Your task to perform on an android device: open app "Facebook" Image 0: 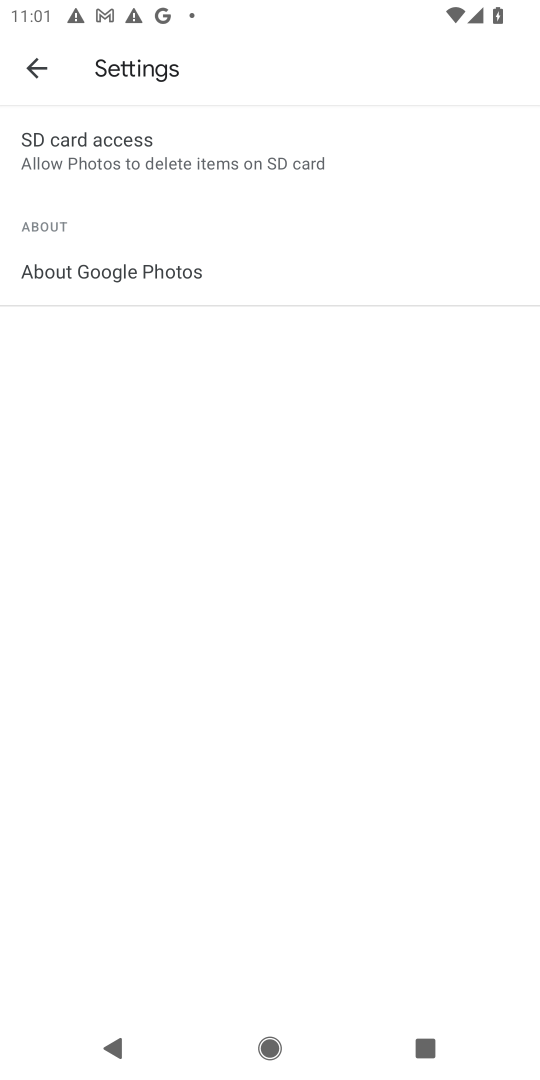
Step 0: press home button
Your task to perform on an android device: open app "Facebook" Image 1: 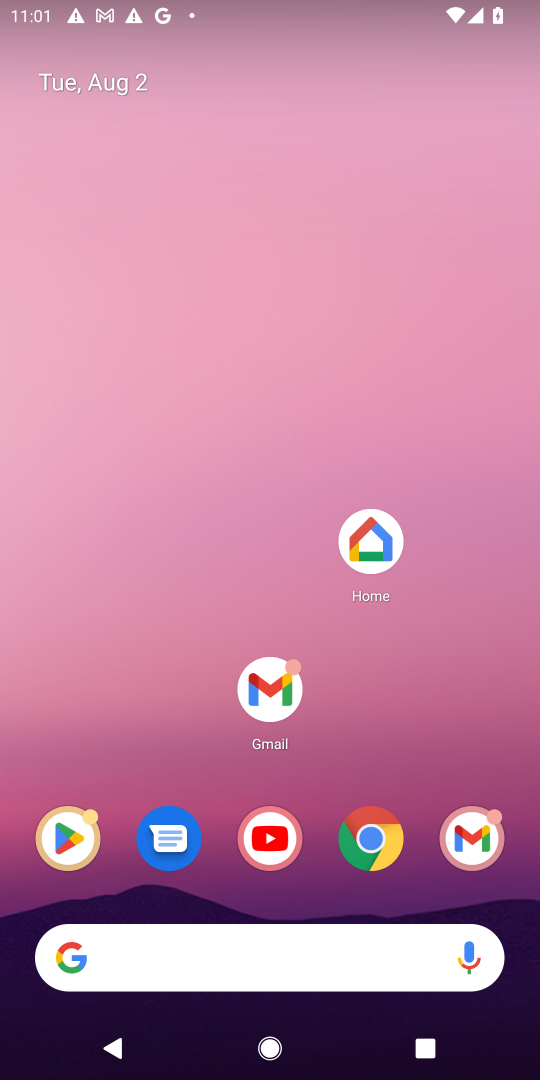
Step 1: drag from (417, 698) to (470, 109)
Your task to perform on an android device: open app "Facebook" Image 2: 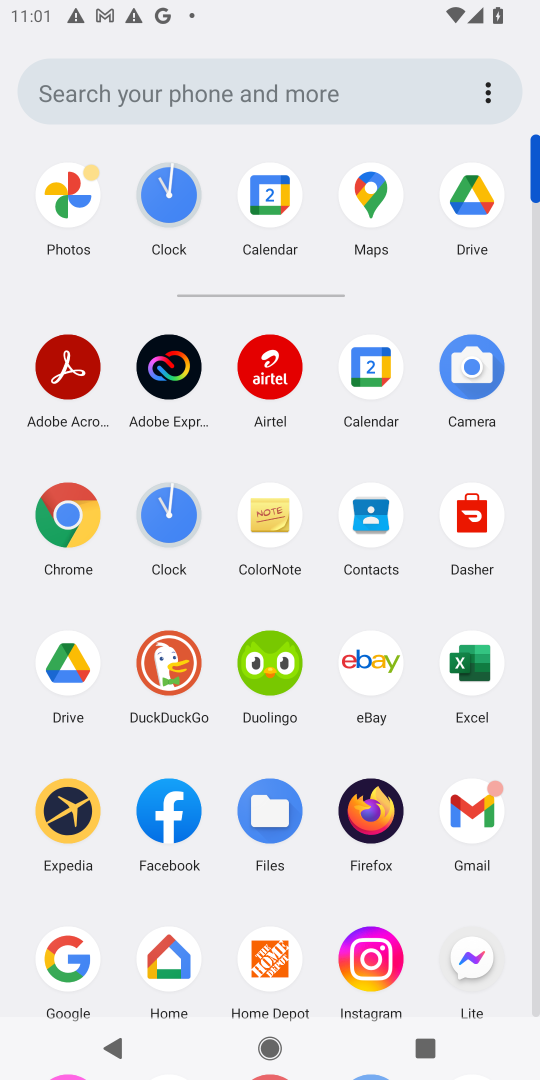
Step 2: drag from (413, 884) to (406, 534)
Your task to perform on an android device: open app "Facebook" Image 3: 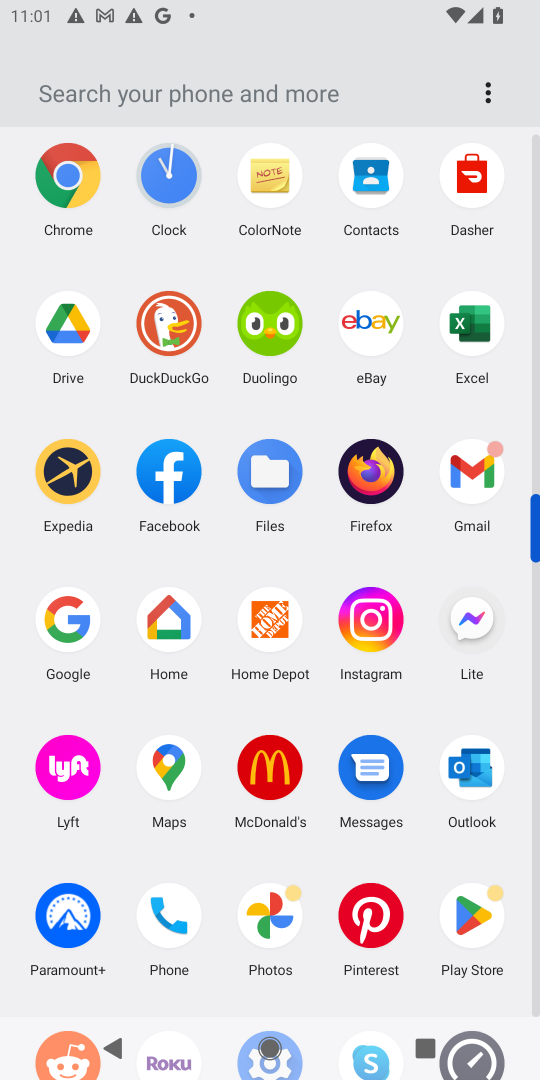
Step 3: click (485, 933)
Your task to perform on an android device: open app "Facebook" Image 4: 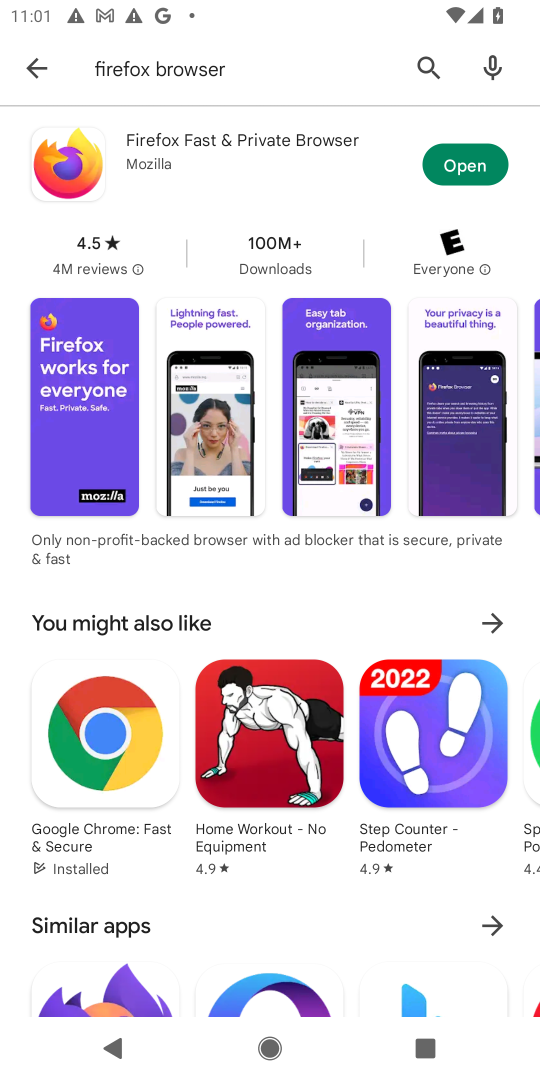
Step 4: click (422, 52)
Your task to perform on an android device: open app "Facebook" Image 5: 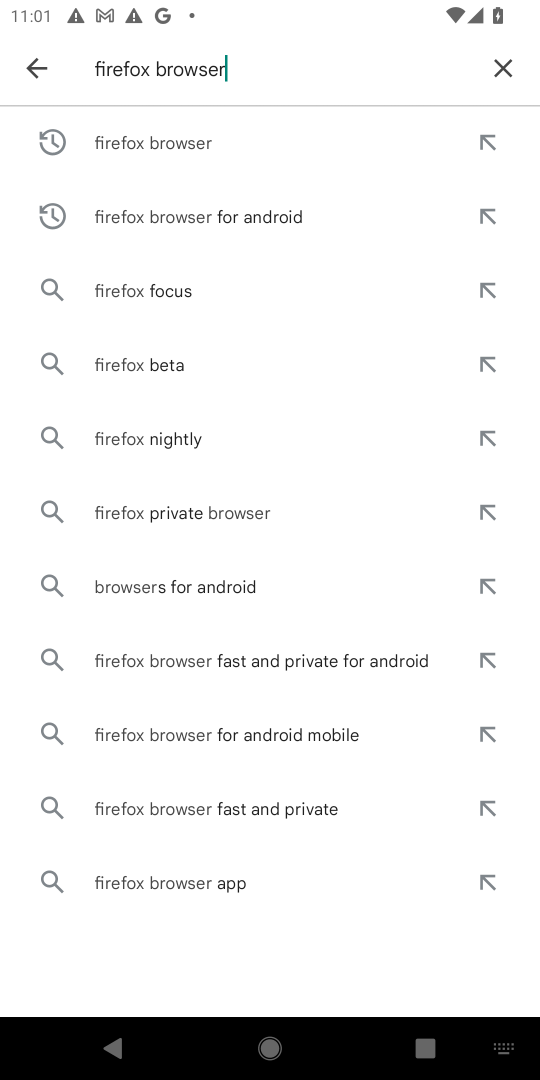
Step 5: click (508, 69)
Your task to perform on an android device: open app "Facebook" Image 6: 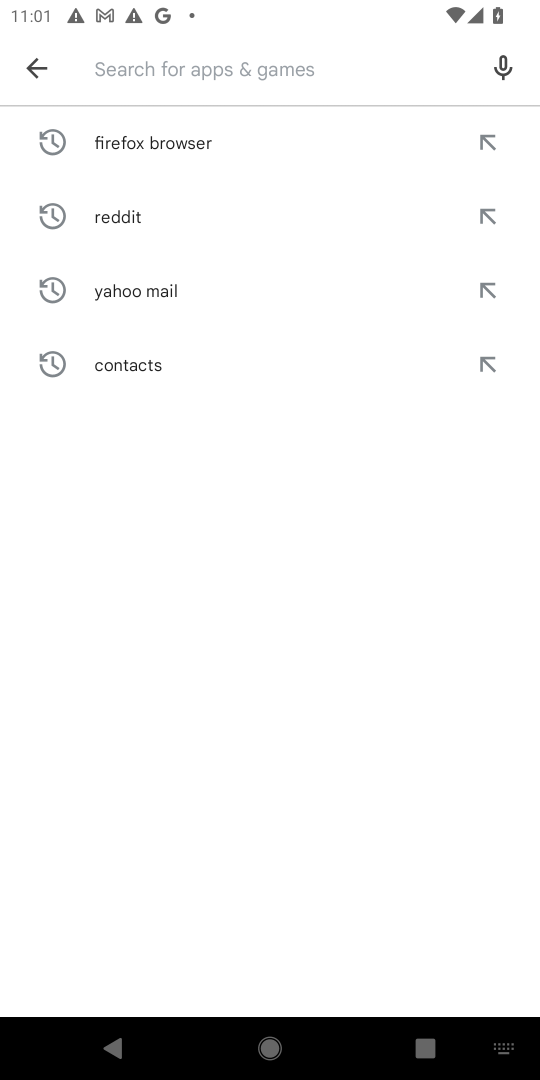
Step 6: click (363, 79)
Your task to perform on an android device: open app "Facebook" Image 7: 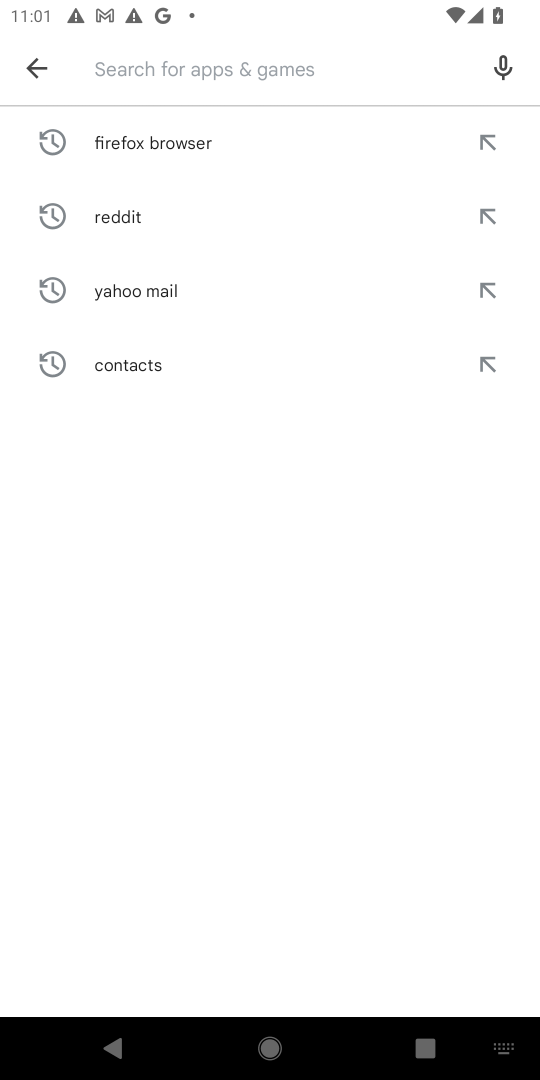
Step 7: type "facebook"
Your task to perform on an android device: open app "Facebook" Image 8: 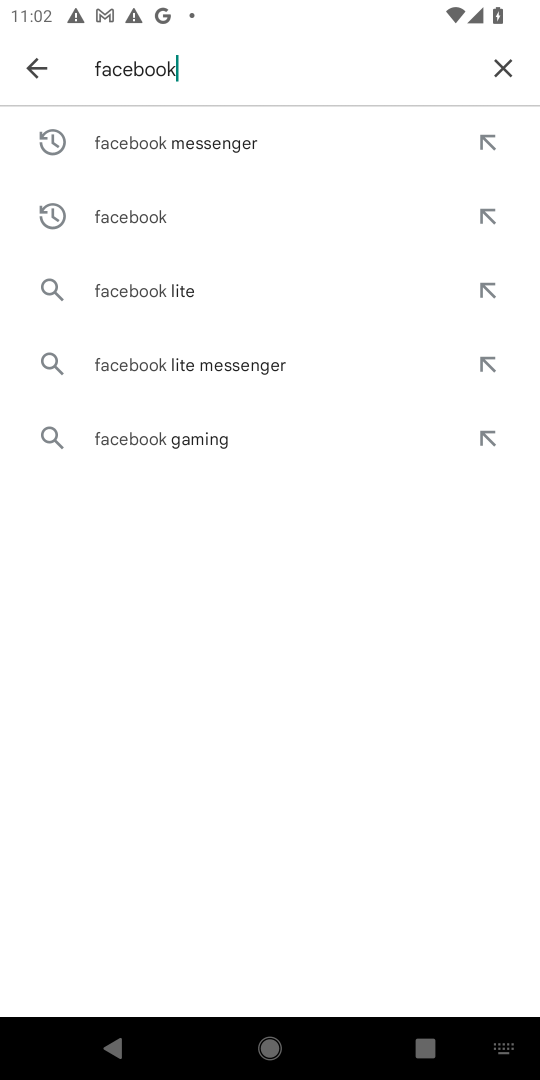
Step 8: click (208, 220)
Your task to perform on an android device: open app "Facebook" Image 9: 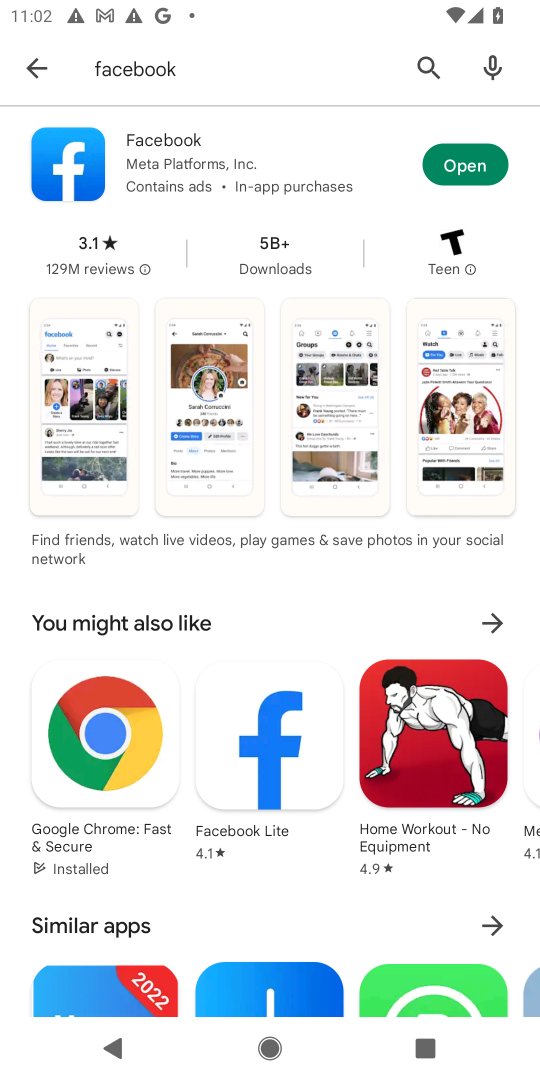
Step 9: click (472, 162)
Your task to perform on an android device: open app "Facebook" Image 10: 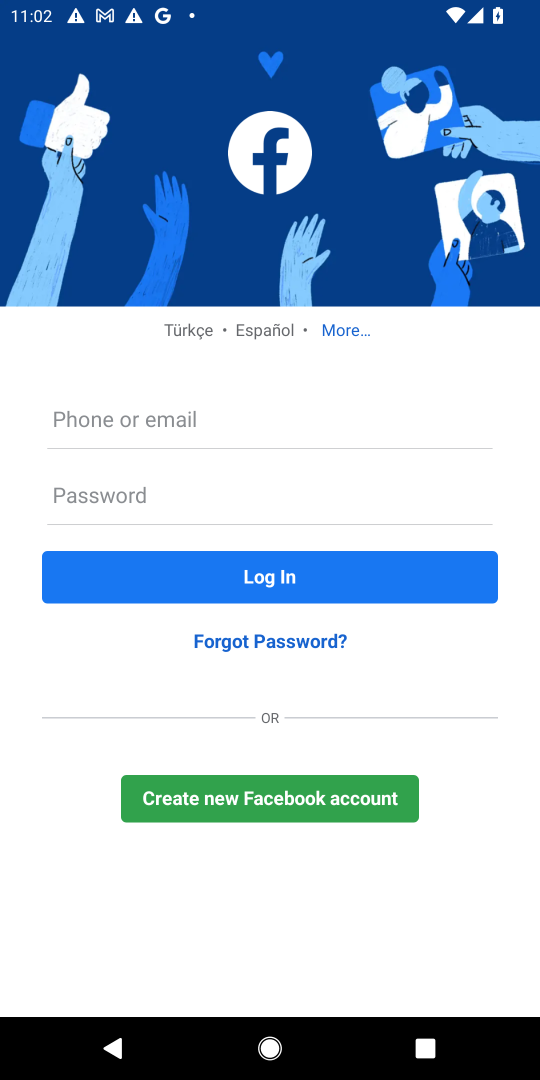
Step 10: task complete